Your task to perform on an android device: toggle notifications settings in the gmail app Image 0: 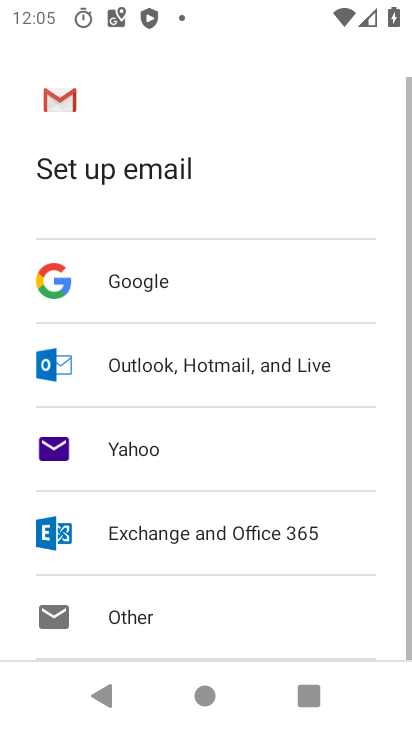
Step 0: press home button
Your task to perform on an android device: toggle notifications settings in the gmail app Image 1: 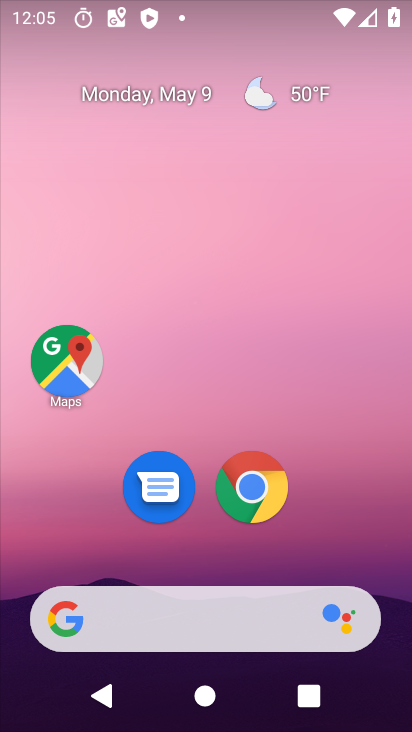
Step 1: drag from (332, 526) to (345, 139)
Your task to perform on an android device: toggle notifications settings in the gmail app Image 2: 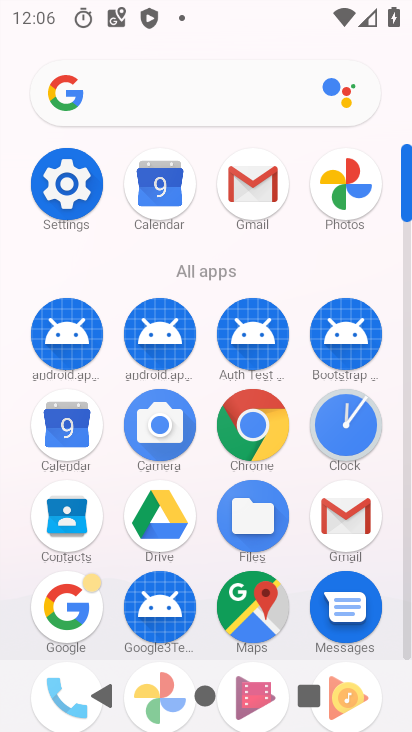
Step 2: click (258, 195)
Your task to perform on an android device: toggle notifications settings in the gmail app Image 3: 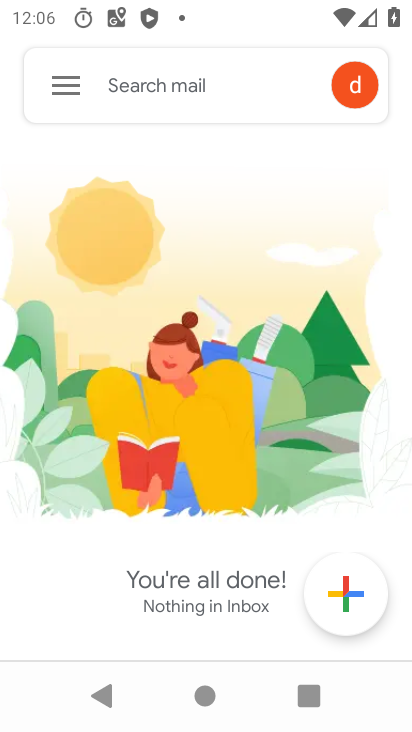
Step 3: click (76, 93)
Your task to perform on an android device: toggle notifications settings in the gmail app Image 4: 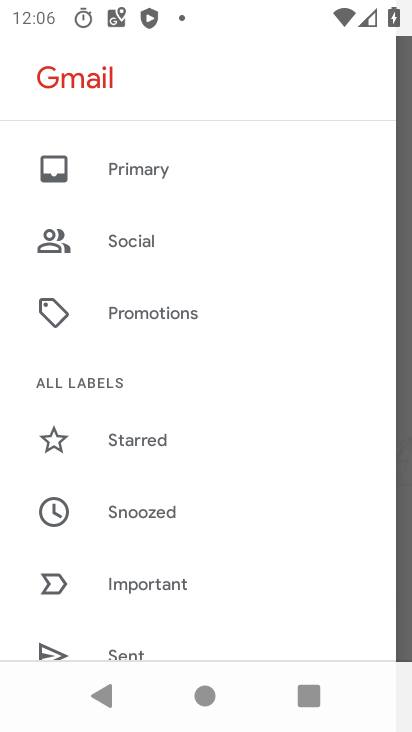
Step 4: drag from (155, 602) to (221, 206)
Your task to perform on an android device: toggle notifications settings in the gmail app Image 5: 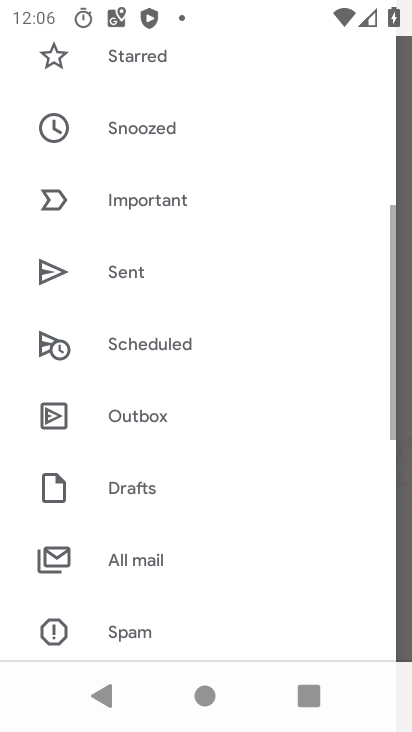
Step 5: drag from (232, 568) to (260, 115)
Your task to perform on an android device: toggle notifications settings in the gmail app Image 6: 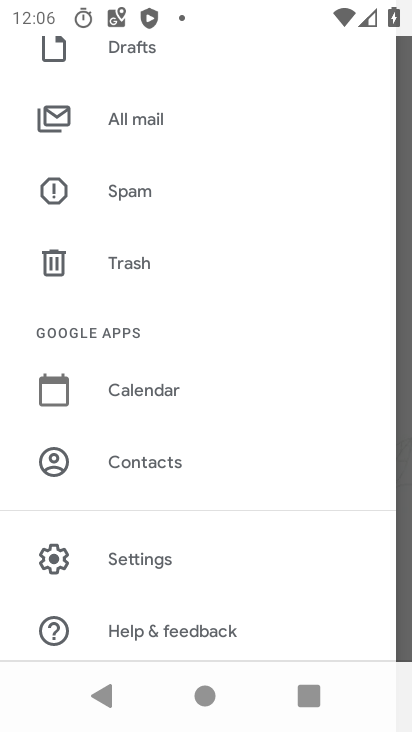
Step 6: click (205, 567)
Your task to perform on an android device: toggle notifications settings in the gmail app Image 7: 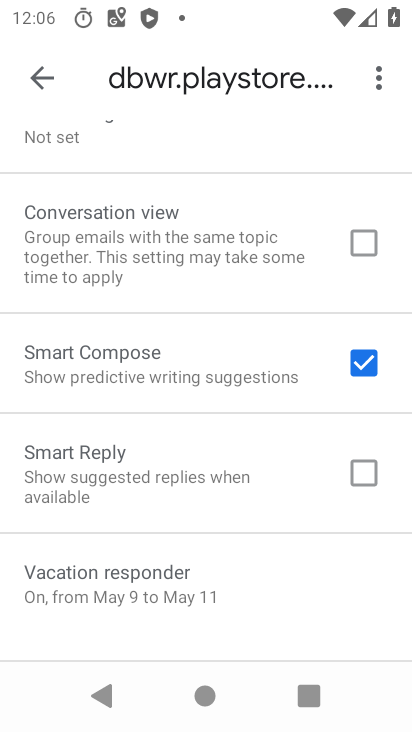
Step 7: drag from (206, 585) to (238, 132)
Your task to perform on an android device: toggle notifications settings in the gmail app Image 8: 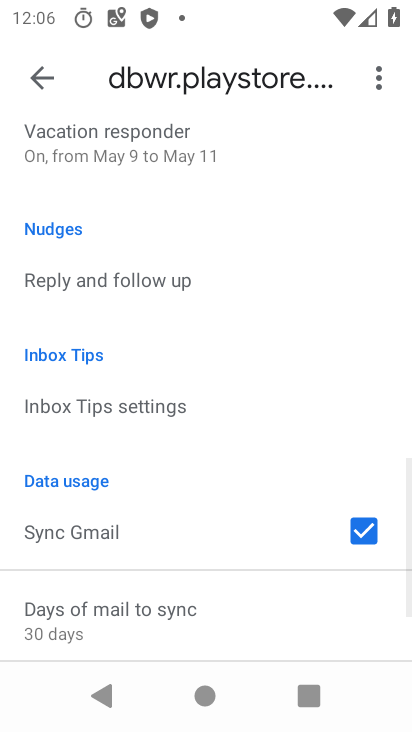
Step 8: drag from (194, 601) to (238, 219)
Your task to perform on an android device: toggle notifications settings in the gmail app Image 9: 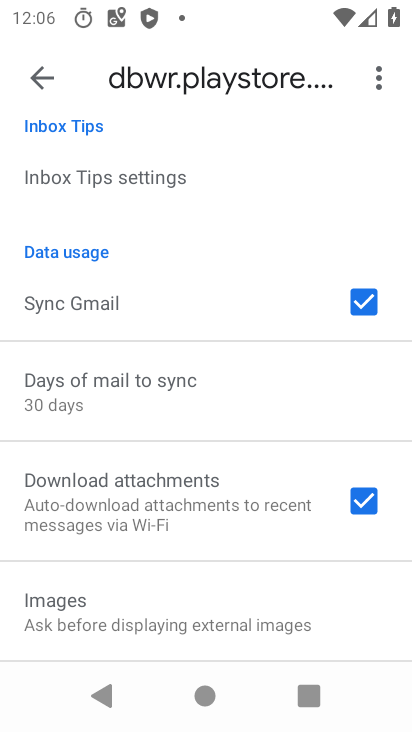
Step 9: drag from (240, 249) to (240, 622)
Your task to perform on an android device: toggle notifications settings in the gmail app Image 10: 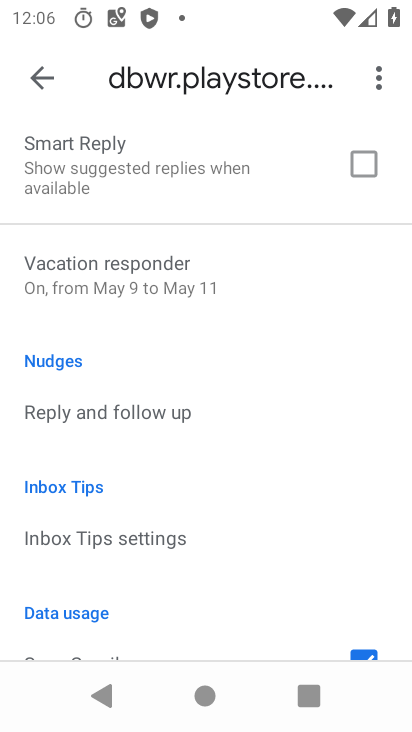
Step 10: drag from (187, 299) to (160, 618)
Your task to perform on an android device: toggle notifications settings in the gmail app Image 11: 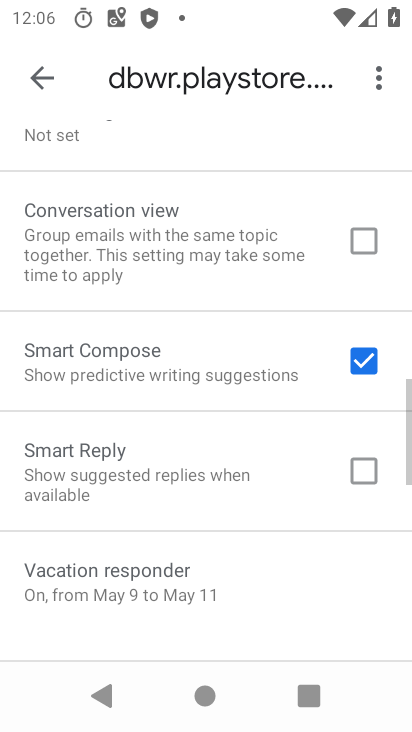
Step 11: drag from (147, 211) to (143, 593)
Your task to perform on an android device: toggle notifications settings in the gmail app Image 12: 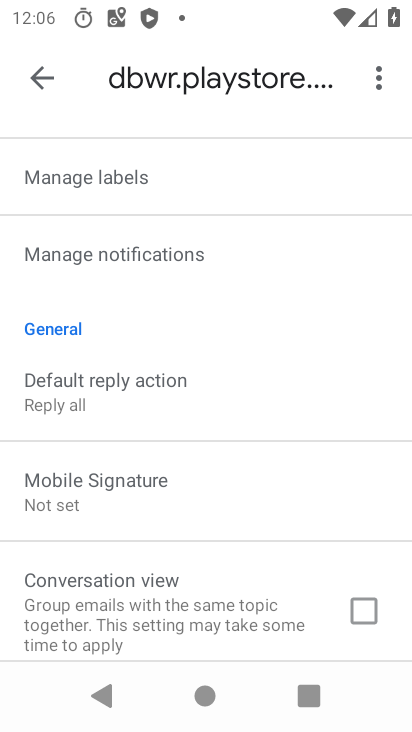
Step 12: drag from (145, 332) to (136, 559)
Your task to perform on an android device: toggle notifications settings in the gmail app Image 13: 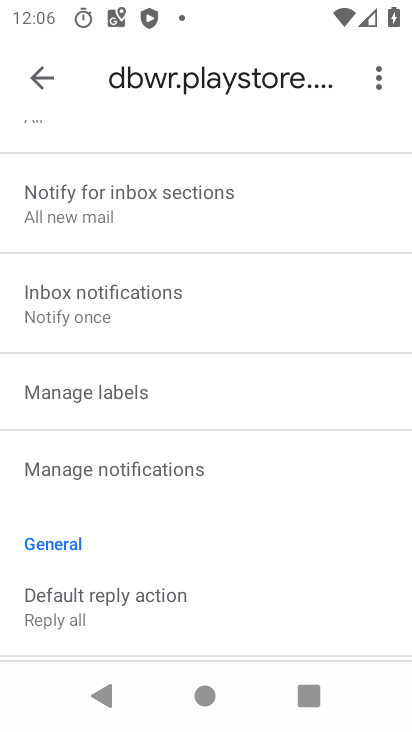
Step 13: drag from (232, 315) to (206, 568)
Your task to perform on an android device: toggle notifications settings in the gmail app Image 14: 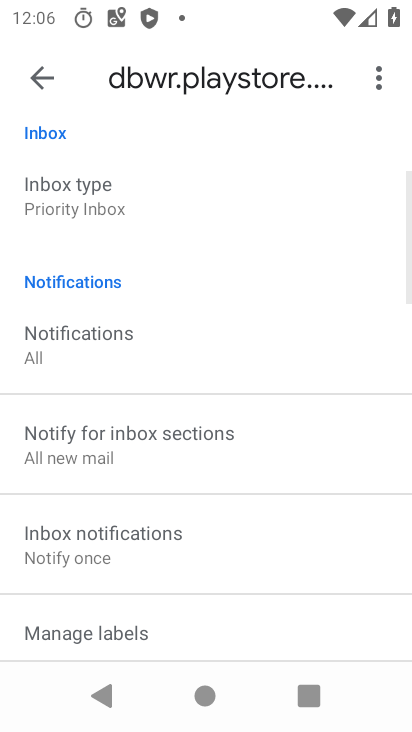
Step 14: click (170, 349)
Your task to perform on an android device: toggle notifications settings in the gmail app Image 15: 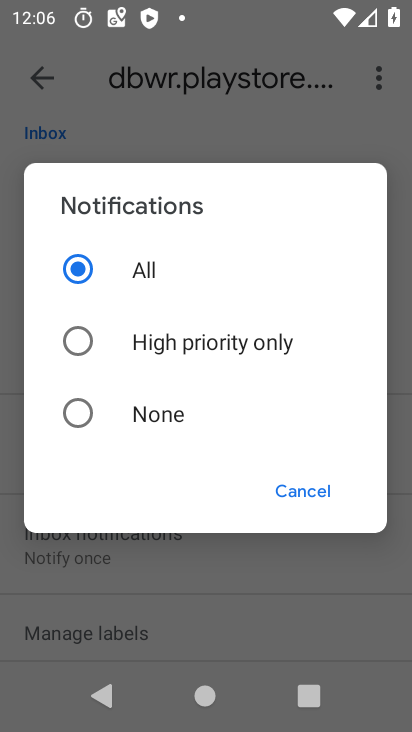
Step 15: click (191, 353)
Your task to perform on an android device: toggle notifications settings in the gmail app Image 16: 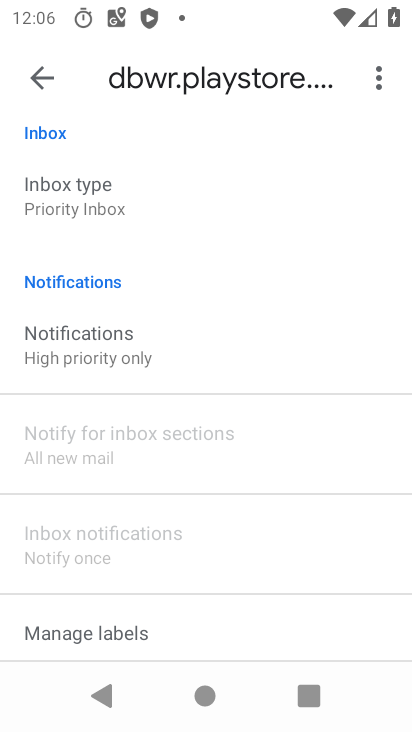
Step 16: task complete